Your task to perform on an android device: change text size in settings app Image 0: 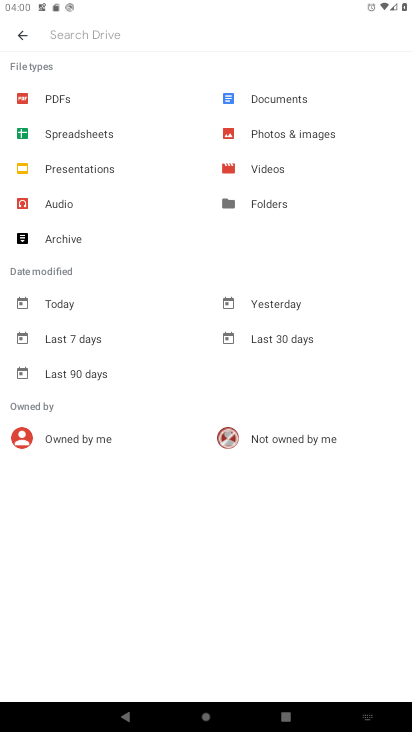
Step 0: press home button
Your task to perform on an android device: change text size in settings app Image 1: 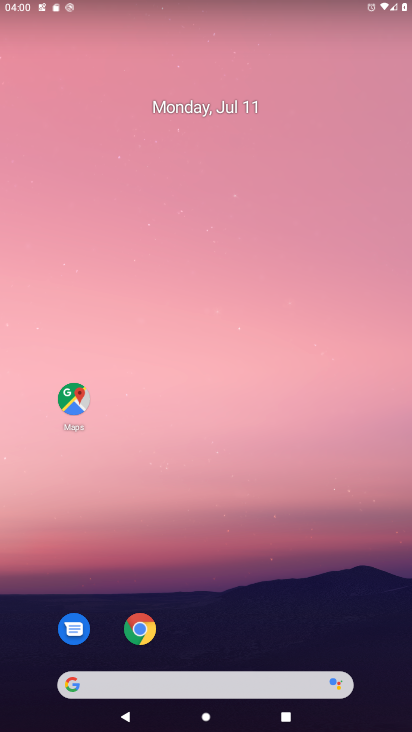
Step 1: drag from (194, 675) to (286, 79)
Your task to perform on an android device: change text size in settings app Image 2: 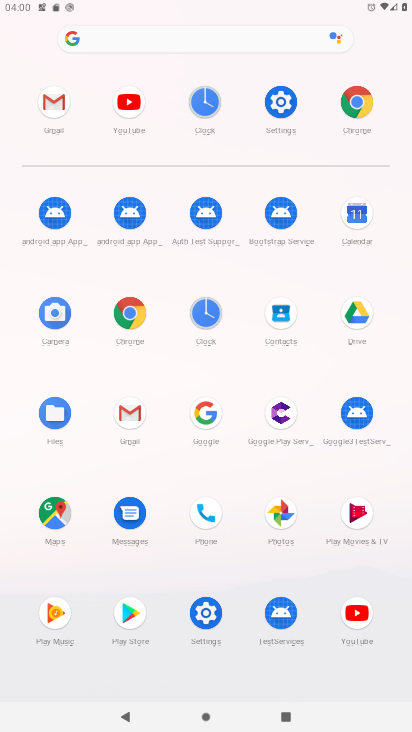
Step 2: click (292, 93)
Your task to perform on an android device: change text size in settings app Image 3: 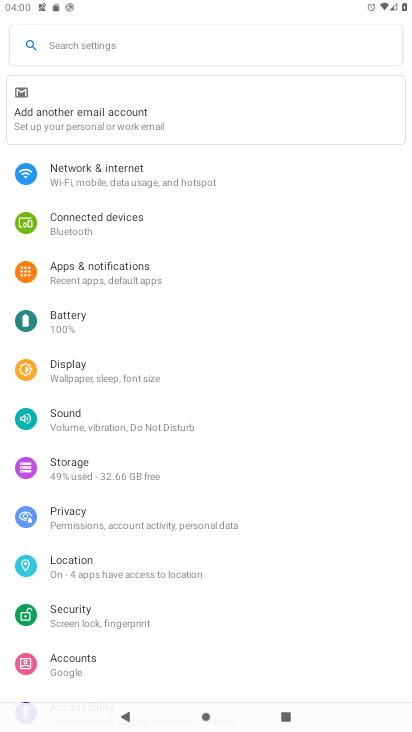
Step 3: click (119, 42)
Your task to perform on an android device: change text size in settings app Image 4: 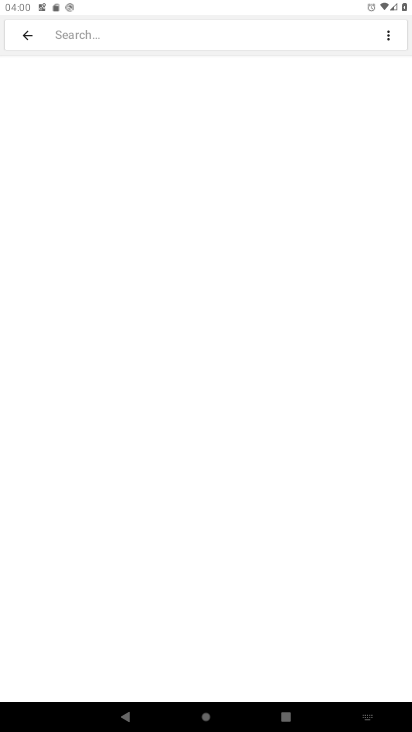
Step 4: type "text  size"
Your task to perform on an android device: change text size in settings app Image 5: 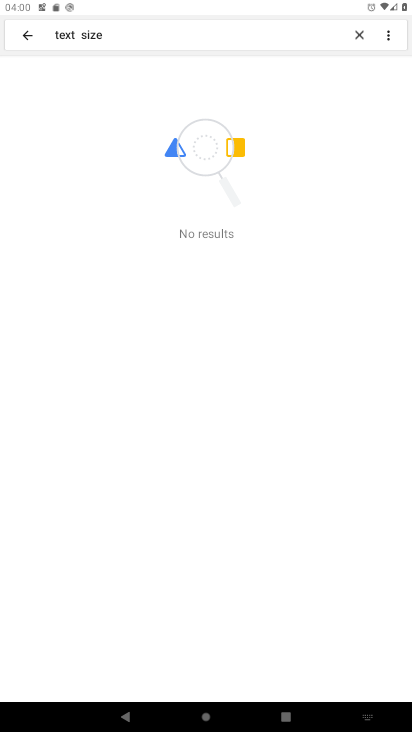
Step 5: click (365, 36)
Your task to perform on an android device: change text size in settings app Image 6: 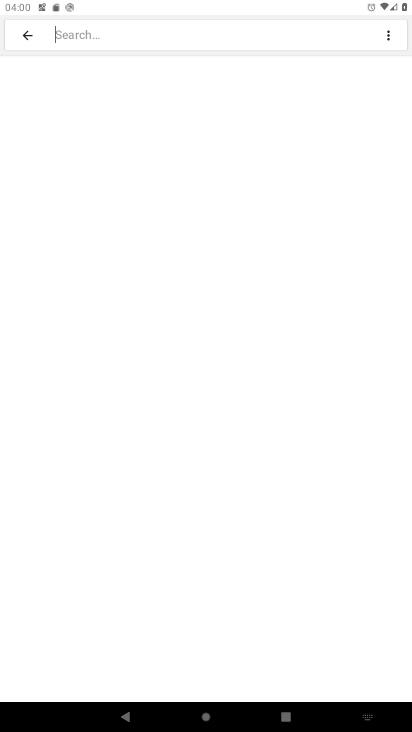
Step 6: click (24, 25)
Your task to perform on an android device: change text size in settings app Image 7: 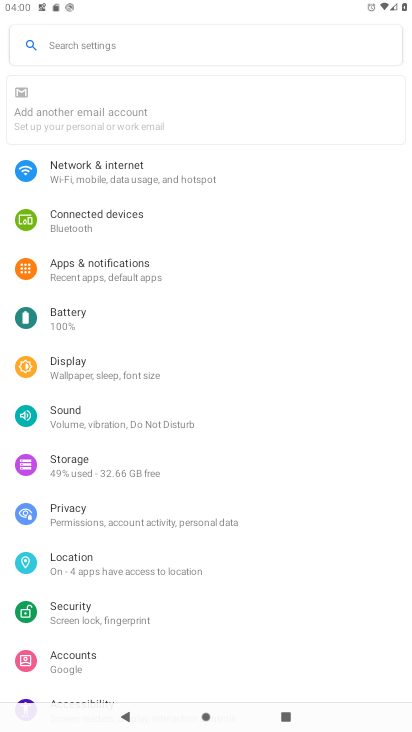
Step 7: click (103, 41)
Your task to perform on an android device: change text size in settings app Image 8: 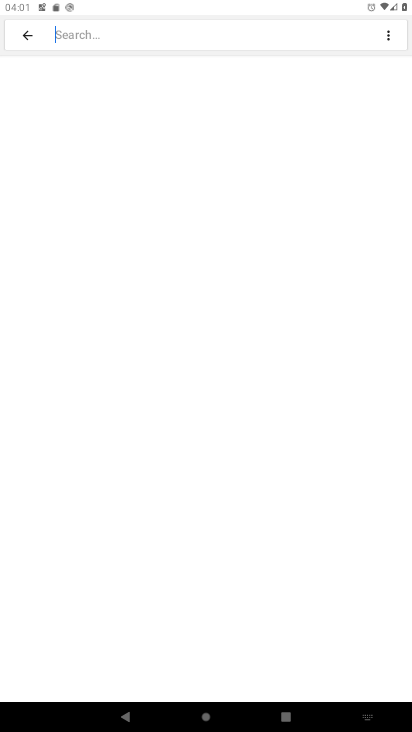
Step 8: type "text"
Your task to perform on an android device: change text size in settings app Image 9: 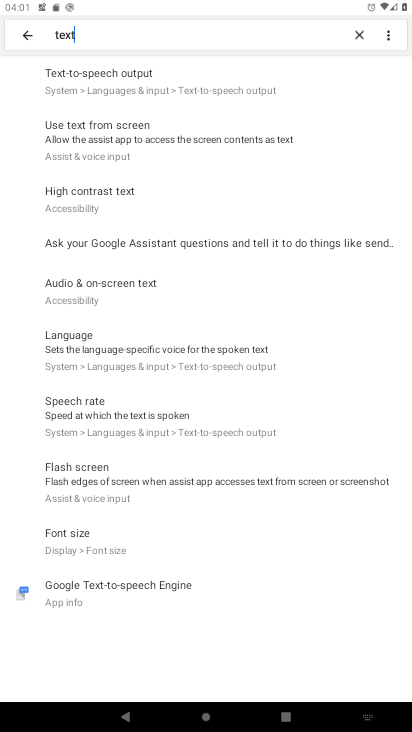
Step 9: click (77, 543)
Your task to perform on an android device: change text size in settings app Image 10: 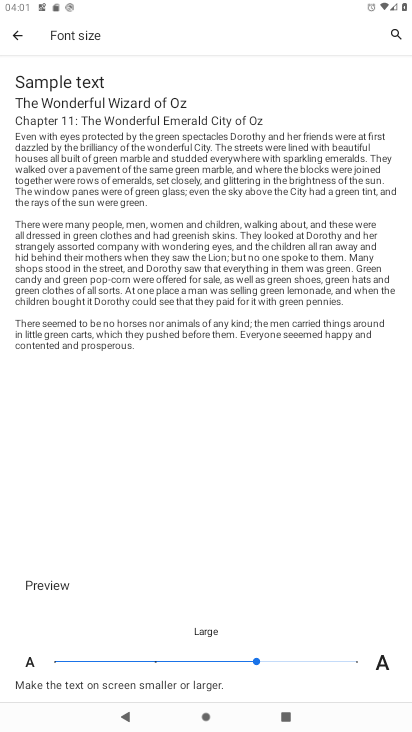
Step 10: task complete